Your task to perform on an android device: Open Chrome and go to the settings page Image 0: 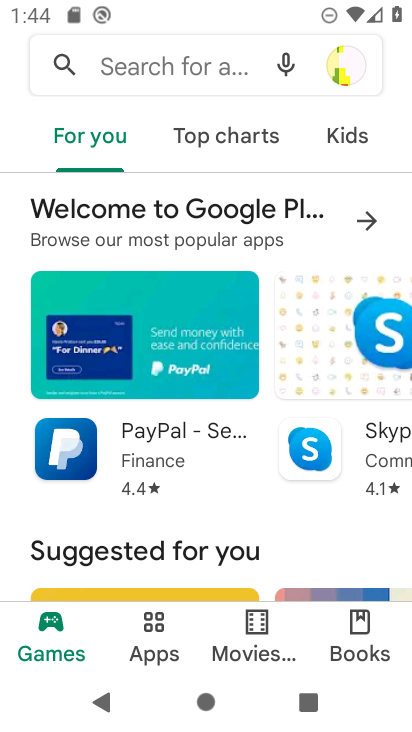
Step 0: press home button
Your task to perform on an android device: Open Chrome and go to the settings page Image 1: 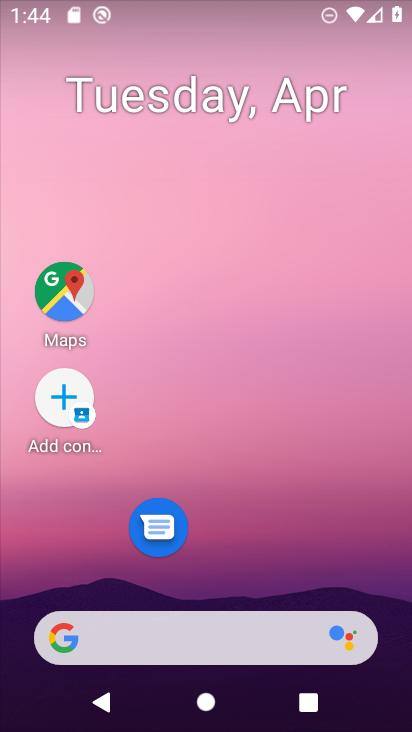
Step 1: drag from (247, 318) to (216, 189)
Your task to perform on an android device: Open Chrome and go to the settings page Image 2: 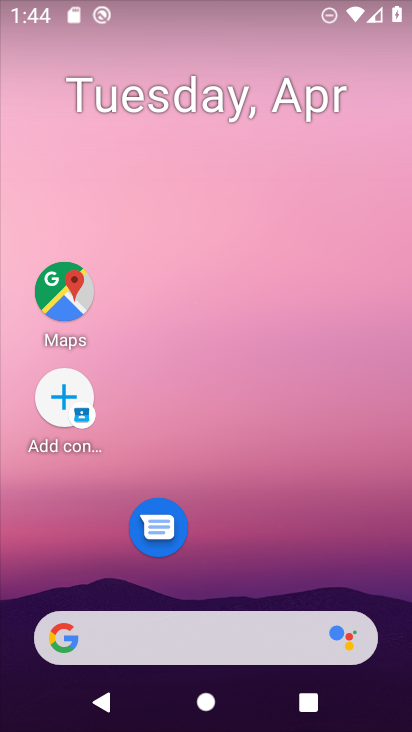
Step 2: drag from (263, 555) to (288, 87)
Your task to perform on an android device: Open Chrome and go to the settings page Image 3: 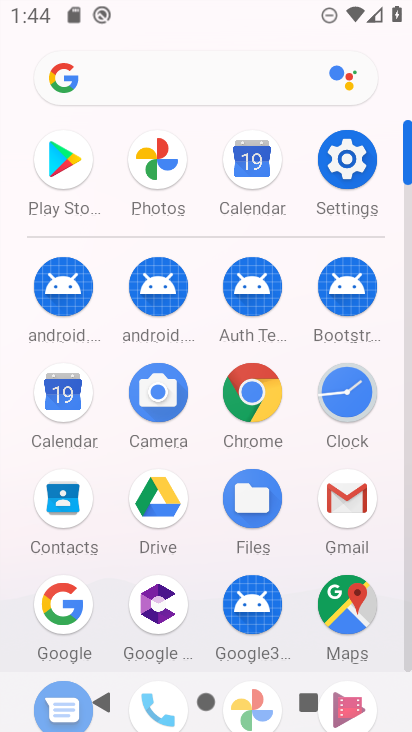
Step 3: drag from (205, 499) to (220, 342)
Your task to perform on an android device: Open Chrome and go to the settings page Image 4: 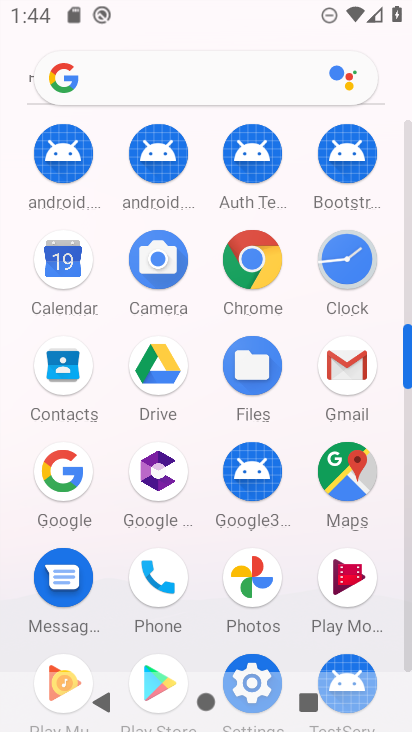
Step 4: click (252, 255)
Your task to perform on an android device: Open Chrome and go to the settings page Image 5: 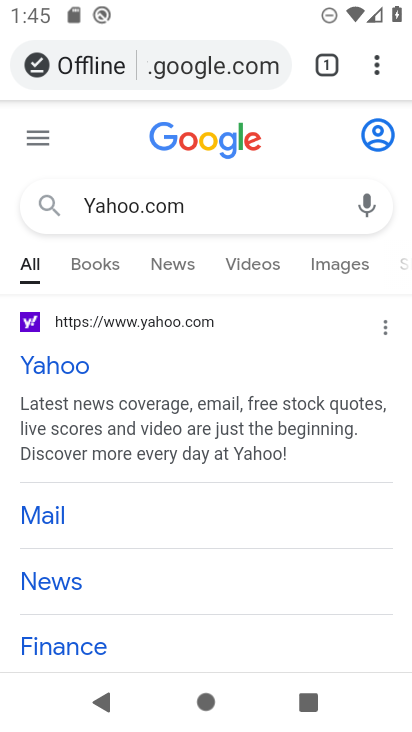
Step 5: click (377, 69)
Your task to perform on an android device: Open Chrome and go to the settings page Image 6: 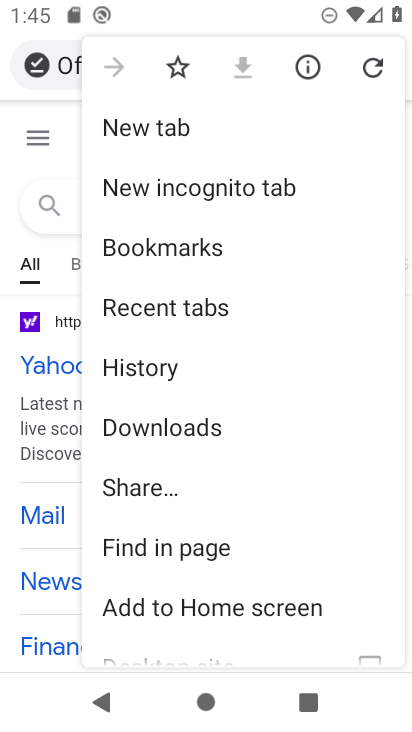
Step 6: drag from (244, 503) to (250, 386)
Your task to perform on an android device: Open Chrome and go to the settings page Image 7: 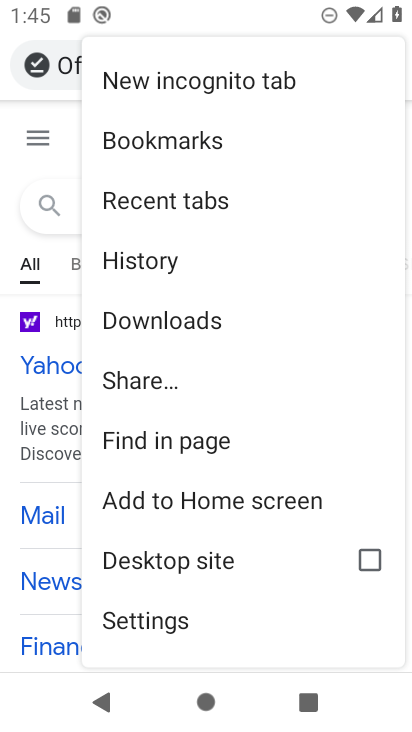
Step 7: drag from (207, 597) to (210, 443)
Your task to perform on an android device: Open Chrome and go to the settings page Image 8: 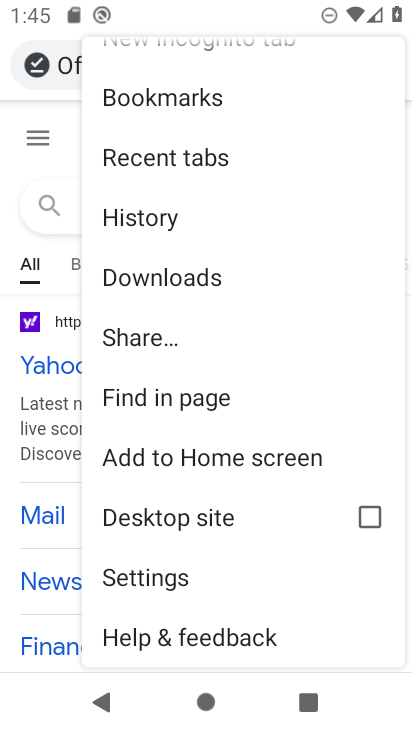
Step 8: click (164, 582)
Your task to perform on an android device: Open Chrome and go to the settings page Image 9: 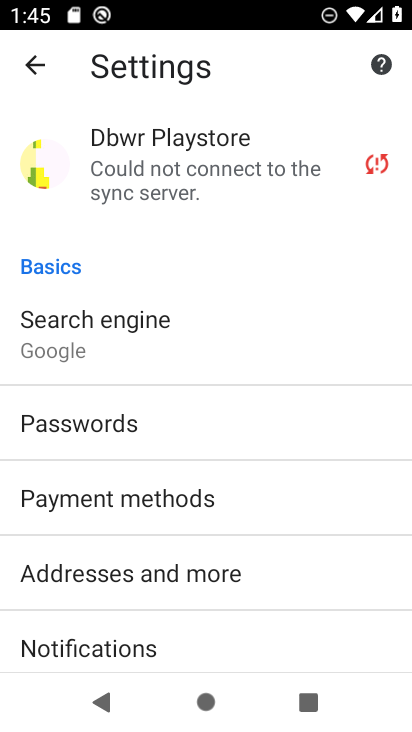
Step 9: task complete